Your task to perform on an android device: set the timer Image 0: 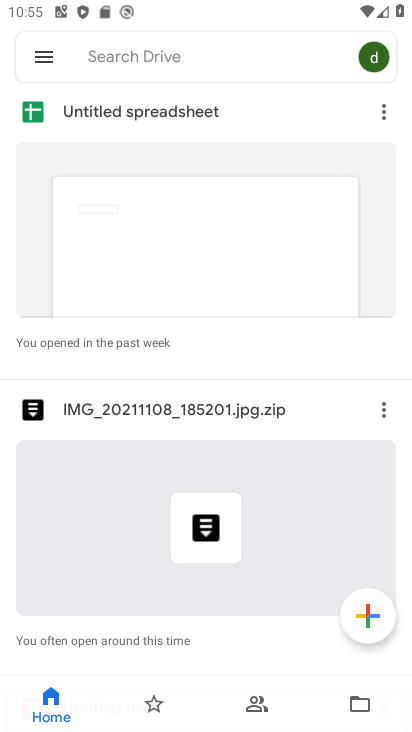
Step 0: press home button
Your task to perform on an android device: set the timer Image 1: 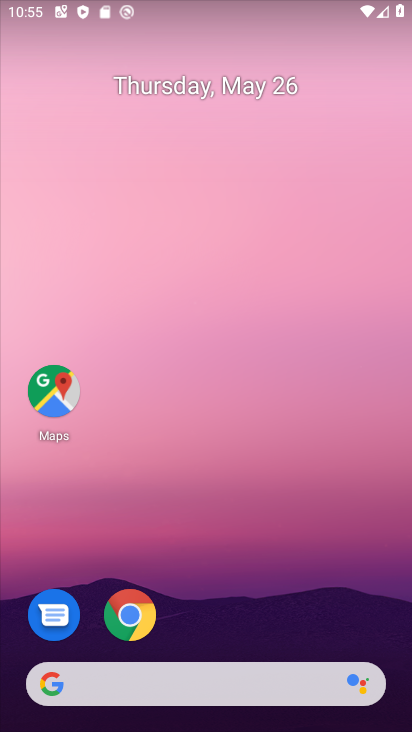
Step 1: drag from (177, 635) to (259, 69)
Your task to perform on an android device: set the timer Image 2: 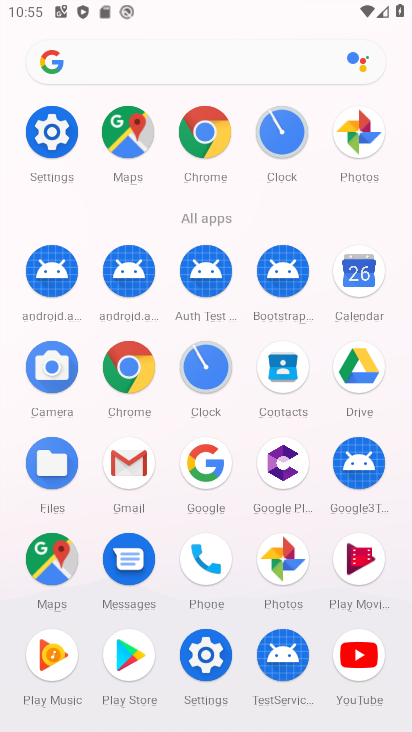
Step 2: click (201, 373)
Your task to perform on an android device: set the timer Image 3: 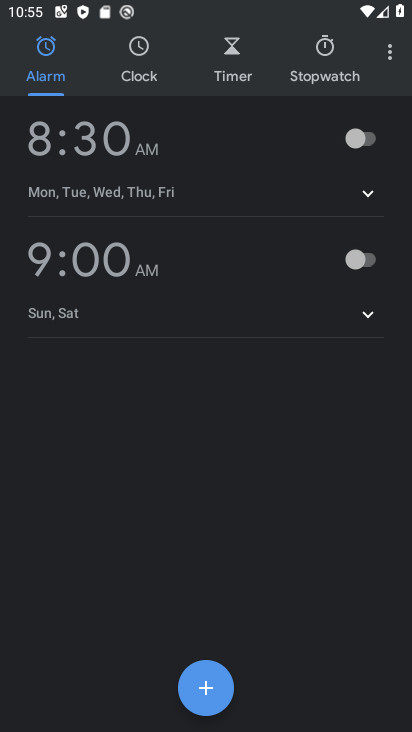
Step 3: click (232, 61)
Your task to perform on an android device: set the timer Image 4: 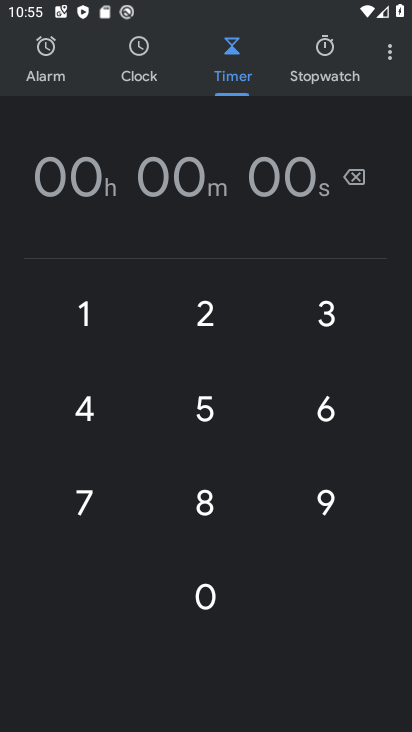
Step 4: click (204, 315)
Your task to perform on an android device: set the timer Image 5: 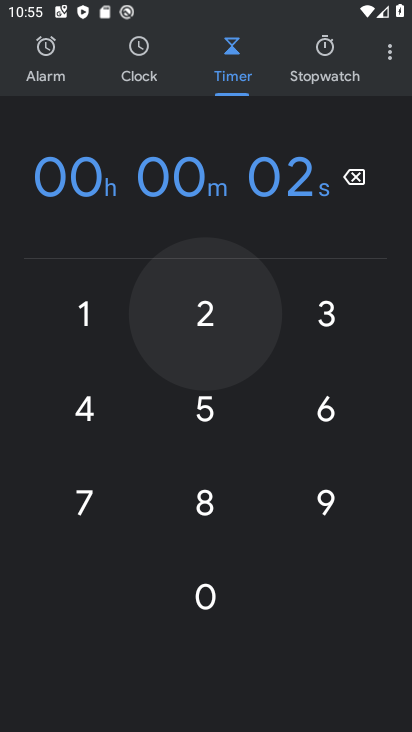
Step 5: click (329, 314)
Your task to perform on an android device: set the timer Image 6: 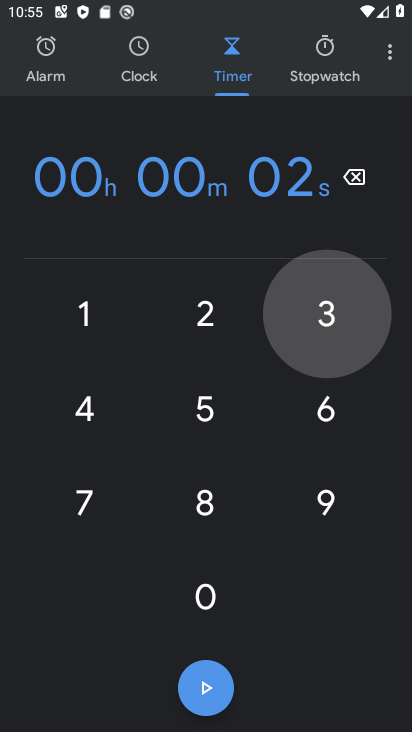
Step 6: click (194, 405)
Your task to perform on an android device: set the timer Image 7: 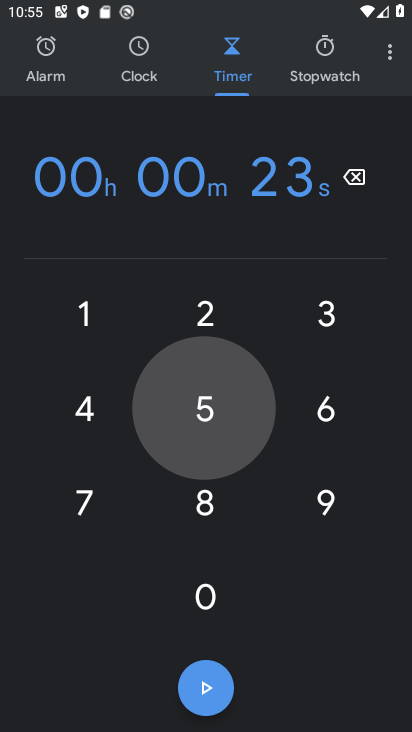
Step 7: click (324, 413)
Your task to perform on an android device: set the timer Image 8: 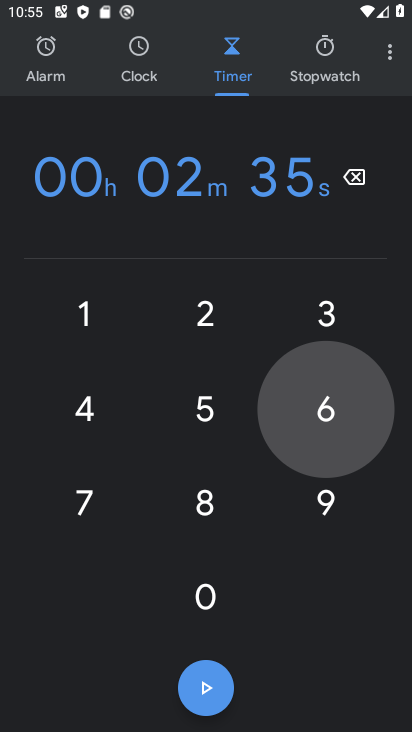
Step 8: click (152, 496)
Your task to perform on an android device: set the timer Image 9: 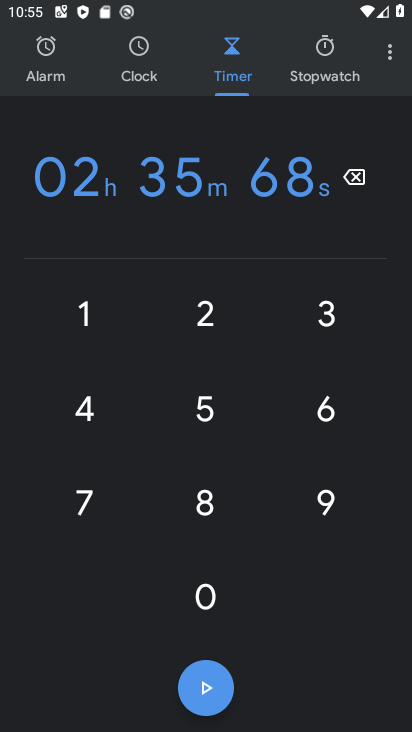
Step 9: click (198, 679)
Your task to perform on an android device: set the timer Image 10: 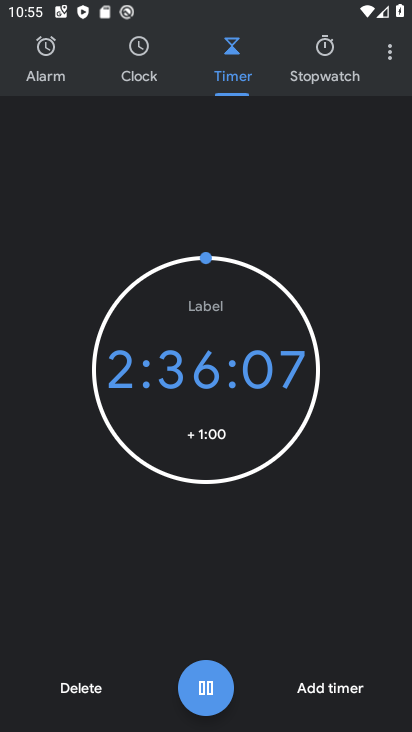
Step 10: task complete